Your task to perform on an android device: Turn off the flashlight Image 0: 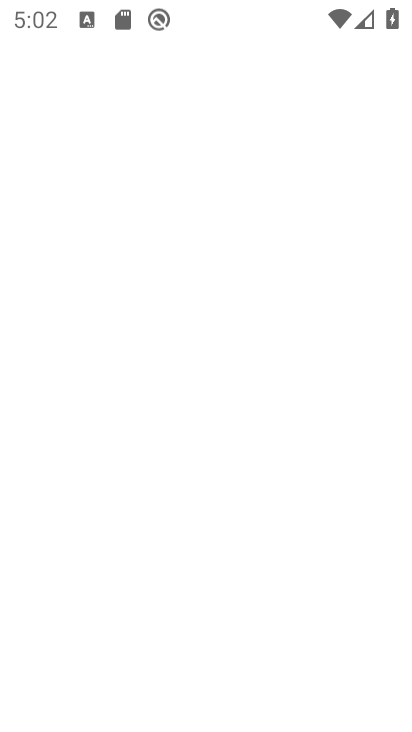
Step 0: click (257, 528)
Your task to perform on an android device: Turn off the flashlight Image 1: 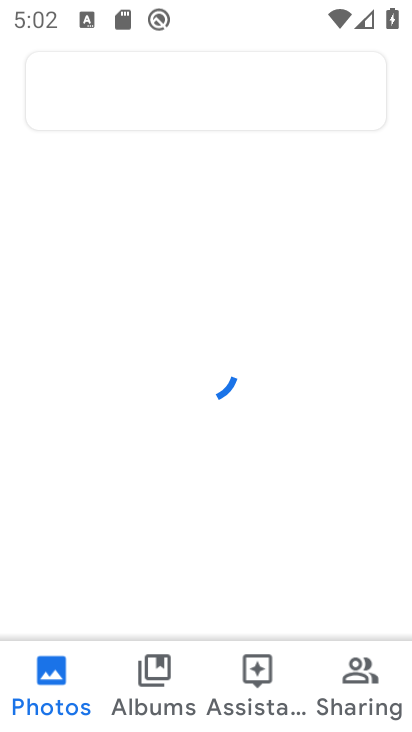
Step 1: press home button
Your task to perform on an android device: Turn off the flashlight Image 2: 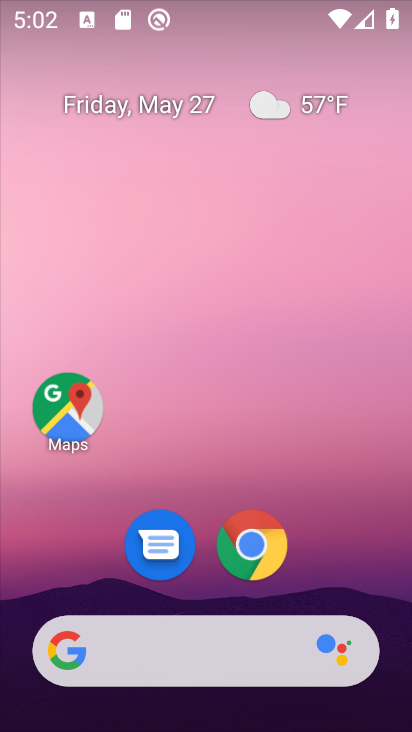
Step 2: drag from (389, 654) to (328, 209)
Your task to perform on an android device: Turn off the flashlight Image 3: 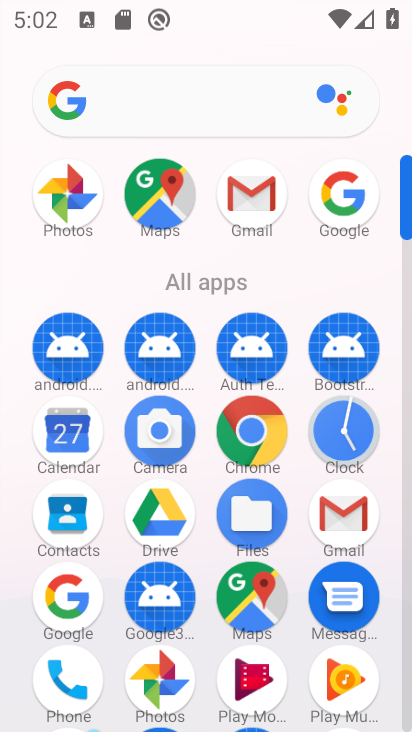
Step 3: drag from (198, 648) to (198, 171)
Your task to perform on an android device: Turn off the flashlight Image 4: 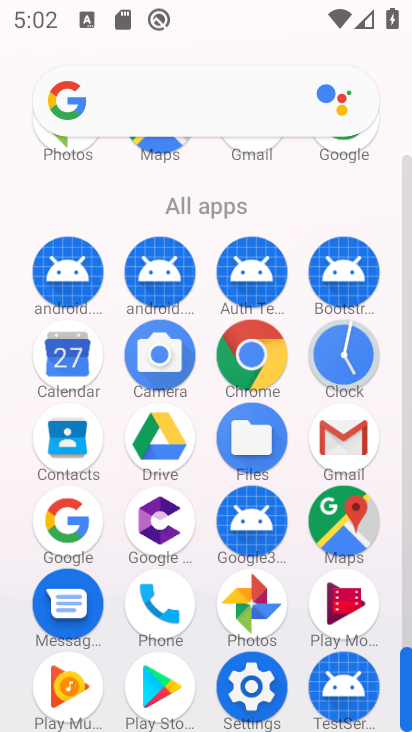
Step 4: click (248, 674)
Your task to perform on an android device: Turn off the flashlight Image 5: 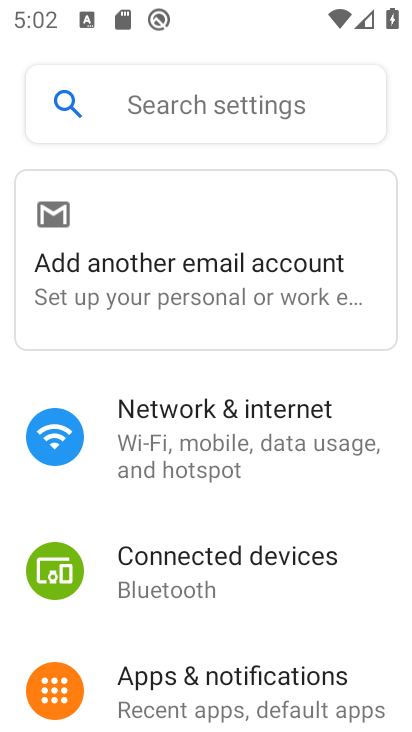
Step 5: drag from (298, 702) to (260, 361)
Your task to perform on an android device: Turn off the flashlight Image 6: 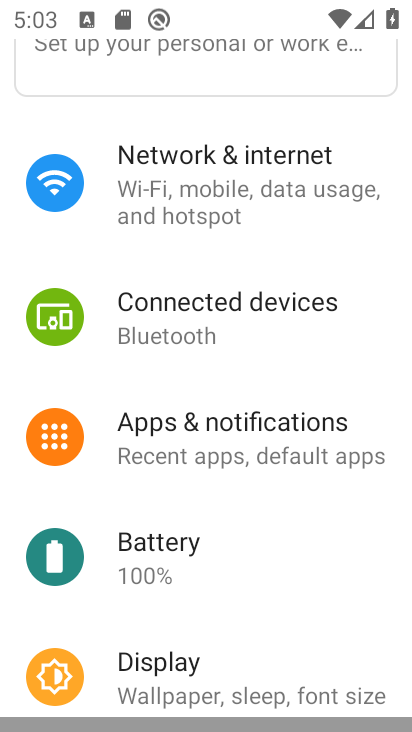
Step 6: drag from (164, 632) to (177, 368)
Your task to perform on an android device: Turn off the flashlight Image 7: 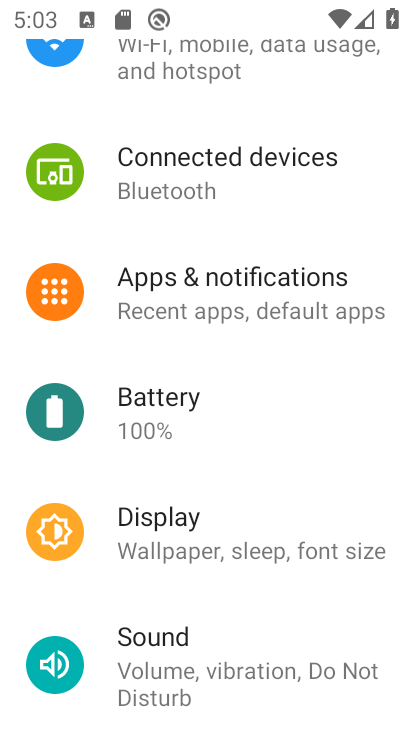
Step 7: click (147, 522)
Your task to perform on an android device: Turn off the flashlight Image 8: 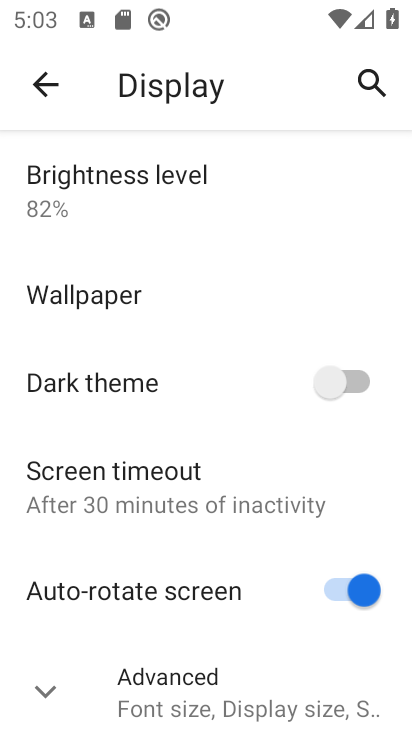
Step 8: task complete